Your task to perform on an android device: What's the weather going to be tomorrow? Image 0: 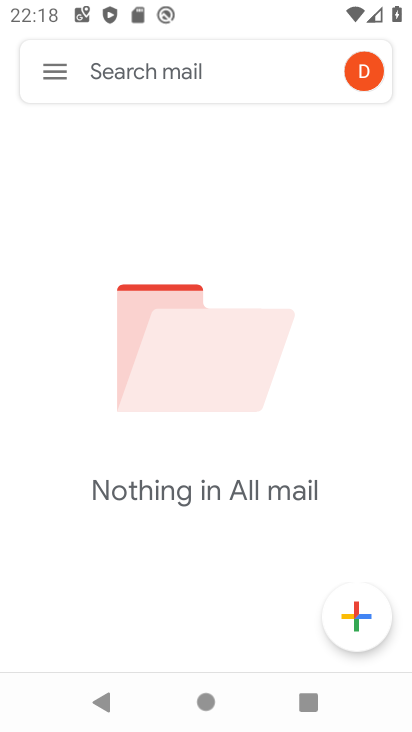
Step 0: press home button
Your task to perform on an android device: What's the weather going to be tomorrow? Image 1: 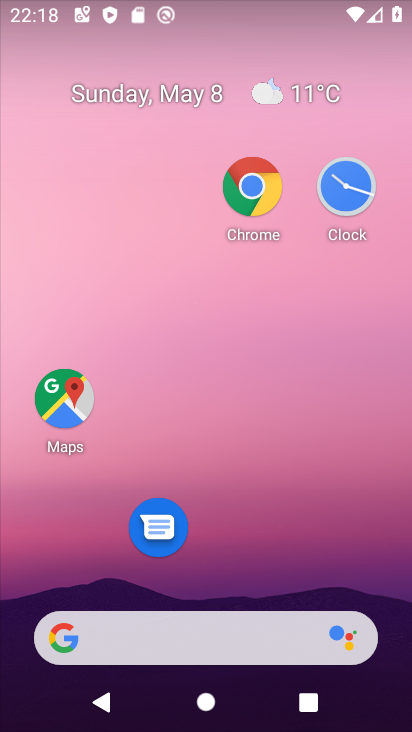
Step 1: drag from (198, 517) to (198, 51)
Your task to perform on an android device: What's the weather going to be tomorrow? Image 2: 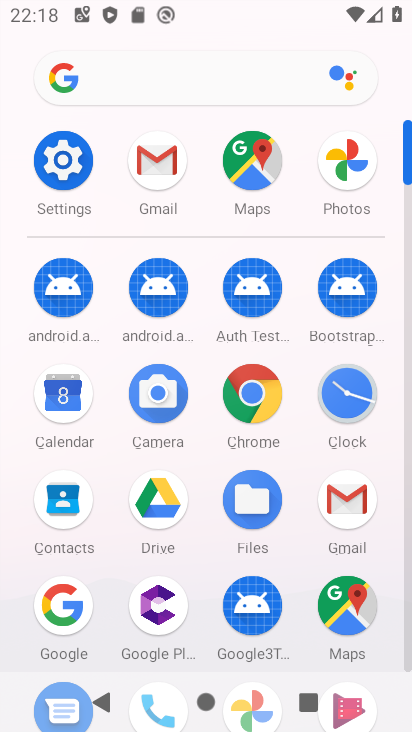
Step 2: press home button
Your task to perform on an android device: What's the weather going to be tomorrow? Image 3: 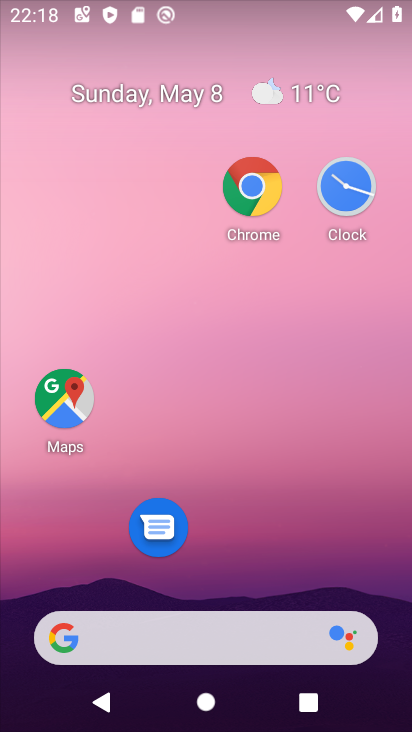
Step 3: click (279, 80)
Your task to perform on an android device: What's the weather going to be tomorrow? Image 4: 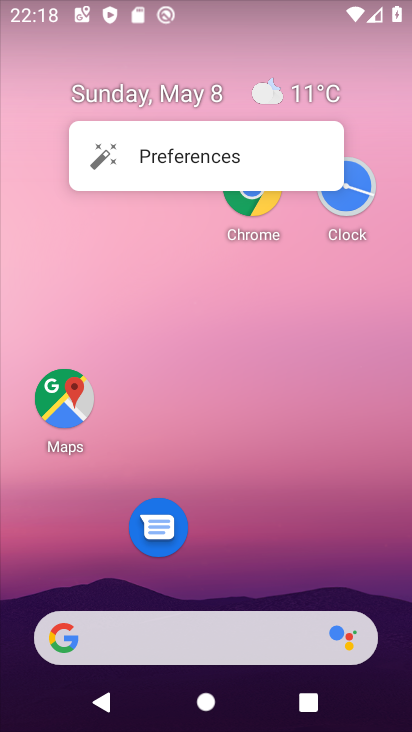
Step 4: press home button
Your task to perform on an android device: What's the weather going to be tomorrow? Image 5: 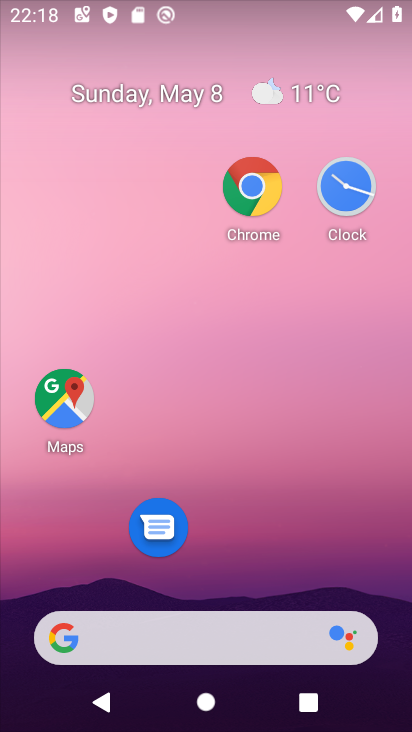
Step 5: click (277, 99)
Your task to perform on an android device: What's the weather going to be tomorrow? Image 6: 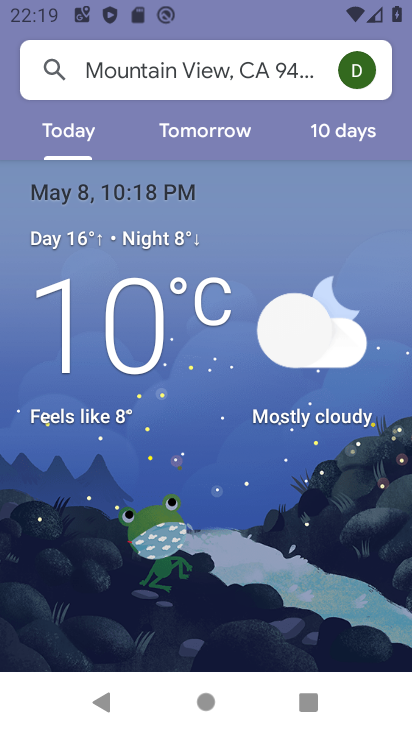
Step 6: click (211, 134)
Your task to perform on an android device: What's the weather going to be tomorrow? Image 7: 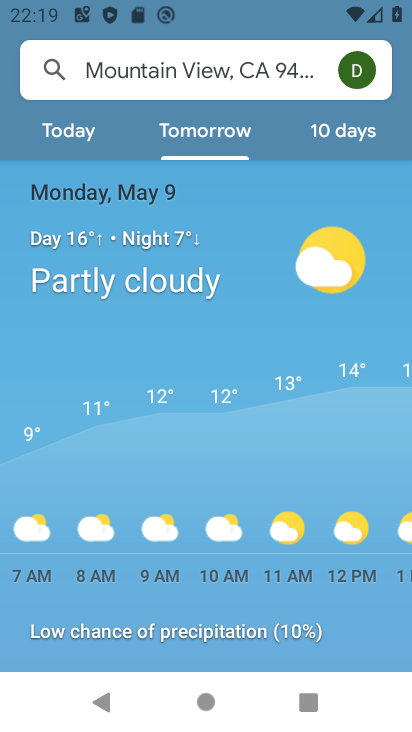
Step 7: task complete